Your task to perform on an android device: toggle pop-ups in chrome Image 0: 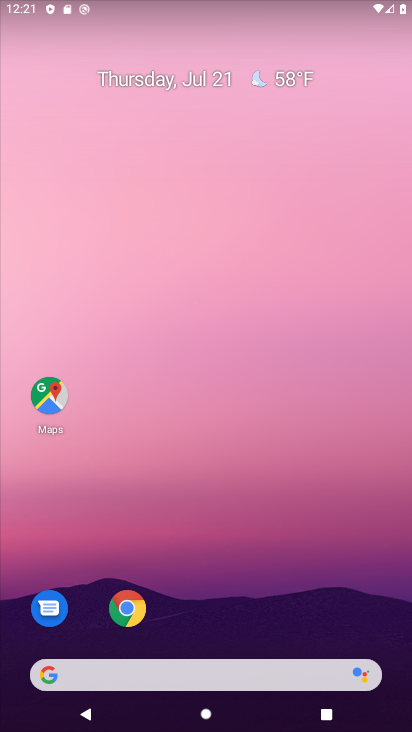
Step 0: press home button
Your task to perform on an android device: toggle pop-ups in chrome Image 1: 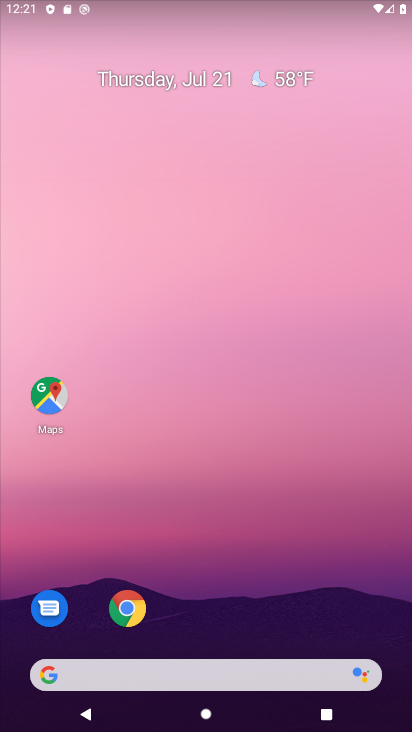
Step 1: click (119, 603)
Your task to perform on an android device: toggle pop-ups in chrome Image 2: 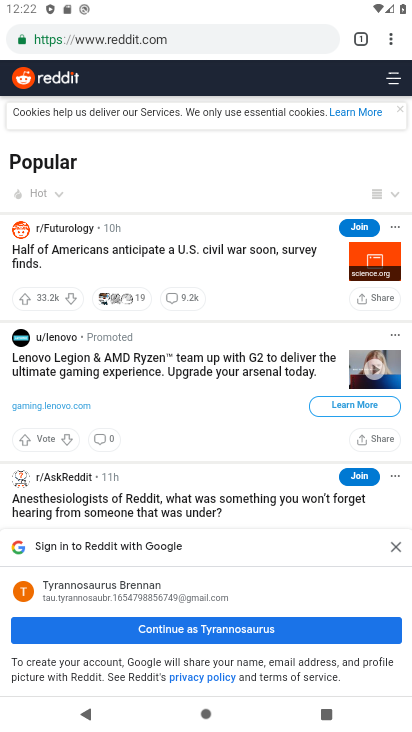
Step 2: click (388, 36)
Your task to perform on an android device: toggle pop-ups in chrome Image 3: 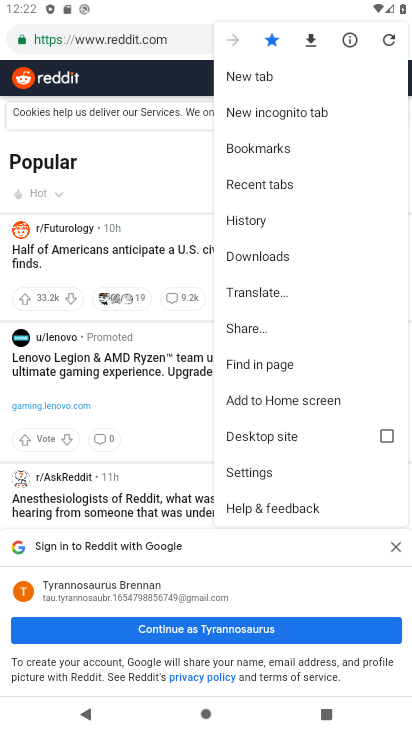
Step 3: click (271, 472)
Your task to perform on an android device: toggle pop-ups in chrome Image 4: 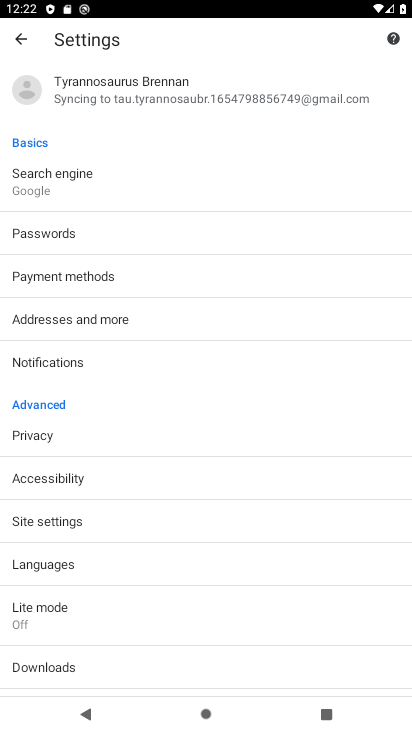
Step 4: click (101, 528)
Your task to perform on an android device: toggle pop-ups in chrome Image 5: 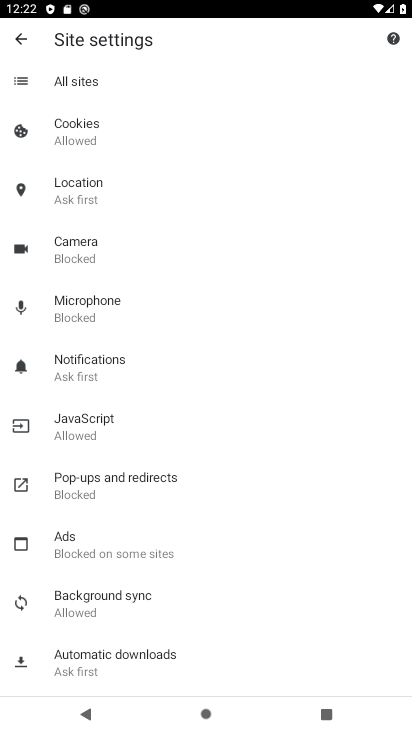
Step 5: click (84, 486)
Your task to perform on an android device: toggle pop-ups in chrome Image 6: 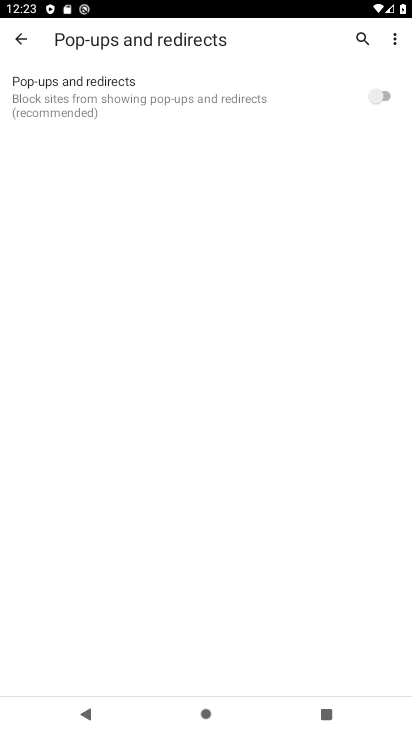
Step 6: click (379, 93)
Your task to perform on an android device: toggle pop-ups in chrome Image 7: 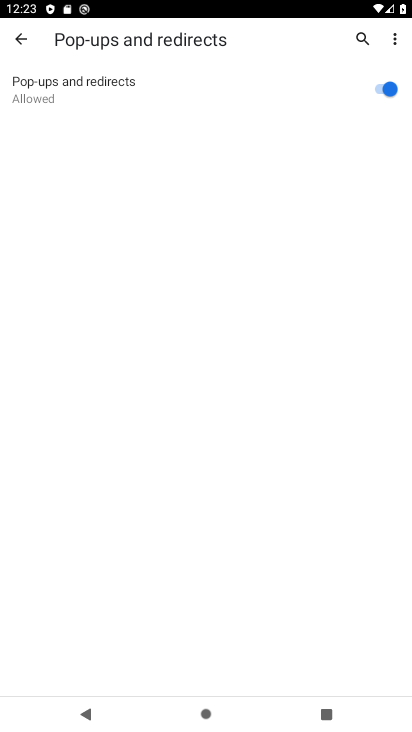
Step 7: task complete